Your task to perform on an android device: Open Google Chrome and open the bookmarks view Image 0: 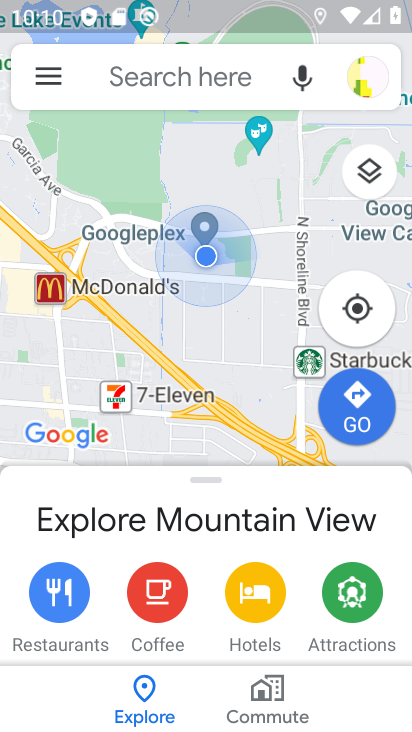
Step 0: press home button
Your task to perform on an android device: Open Google Chrome and open the bookmarks view Image 1: 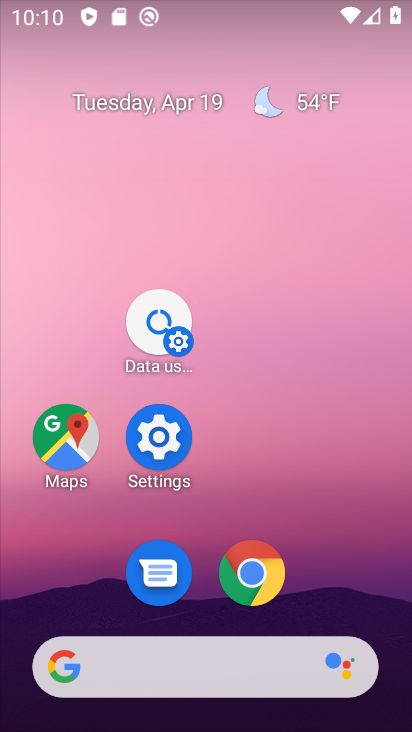
Step 1: click (252, 582)
Your task to perform on an android device: Open Google Chrome and open the bookmarks view Image 2: 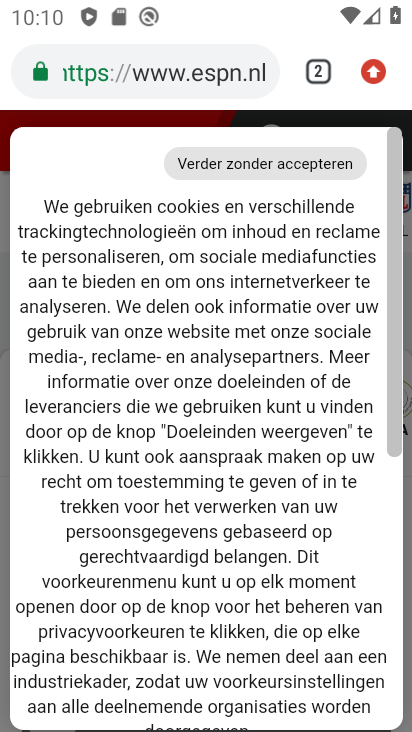
Step 2: click (370, 71)
Your task to perform on an android device: Open Google Chrome and open the bookmarks view Image 3: 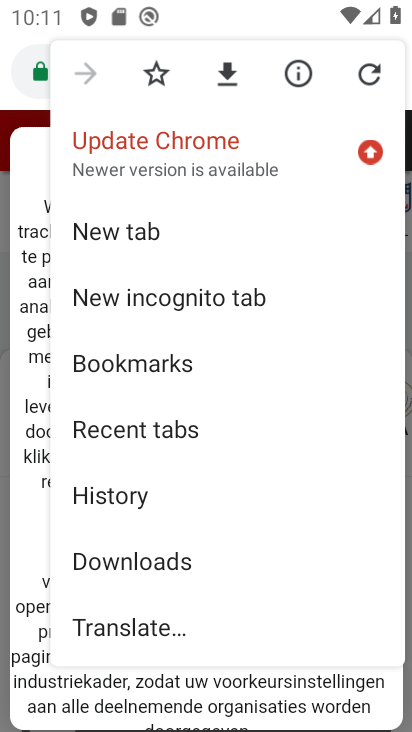
Step 3: click (129, 359)
Your task to perform on an android device: Open Google Chrome and open the bookmarks view Image 4: 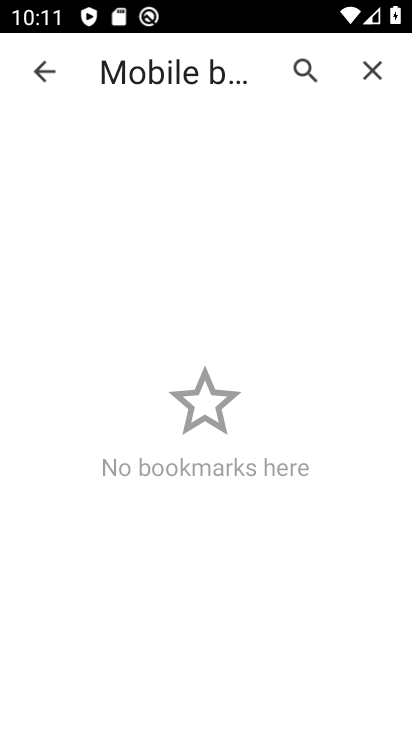
Step 4: task complete